Your task to perform on an android device: Open maps Image 0: 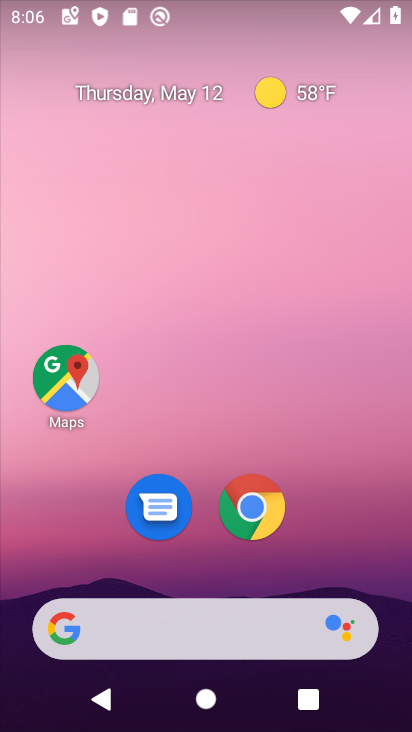
Step 0: click (57, 385)
Your task to perform on an android device: Open maps Image 1: 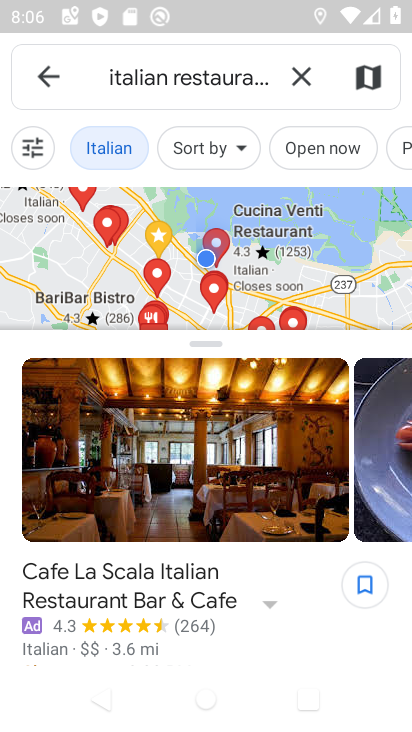
Step 1: task complete